Your task to perform on an android device: turn off data saver in the chrome app Image 0: 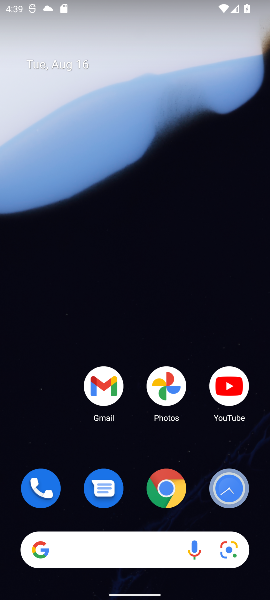
Step 0: drag from (95, 316) to (148, 147)
Your task to perform on an android device: turn off data saver in the chrome app Image 1: 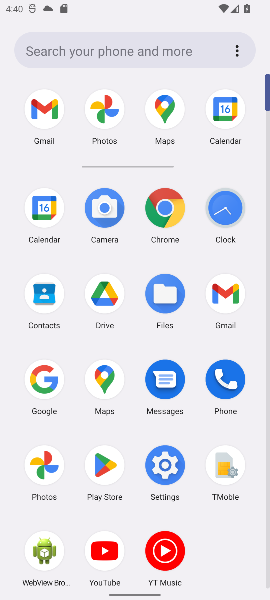
Step 1: task complete